Your task to perform on an android device: stop showing notifications on the lock screen Image 0: 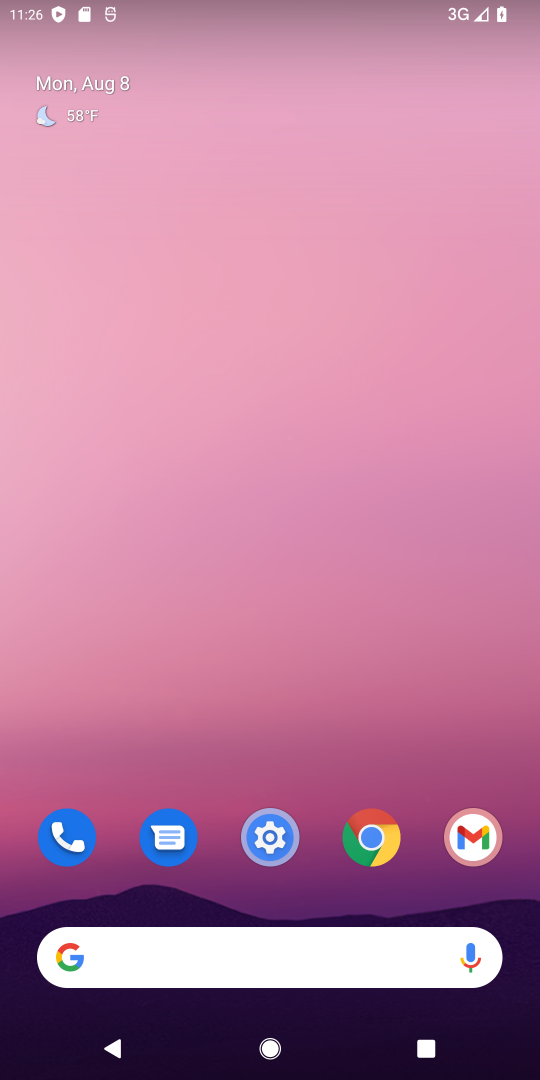
Step 0: click (271, 830)
Your task to perform on an android device: stop showing notifications on the lock screen Image 1: 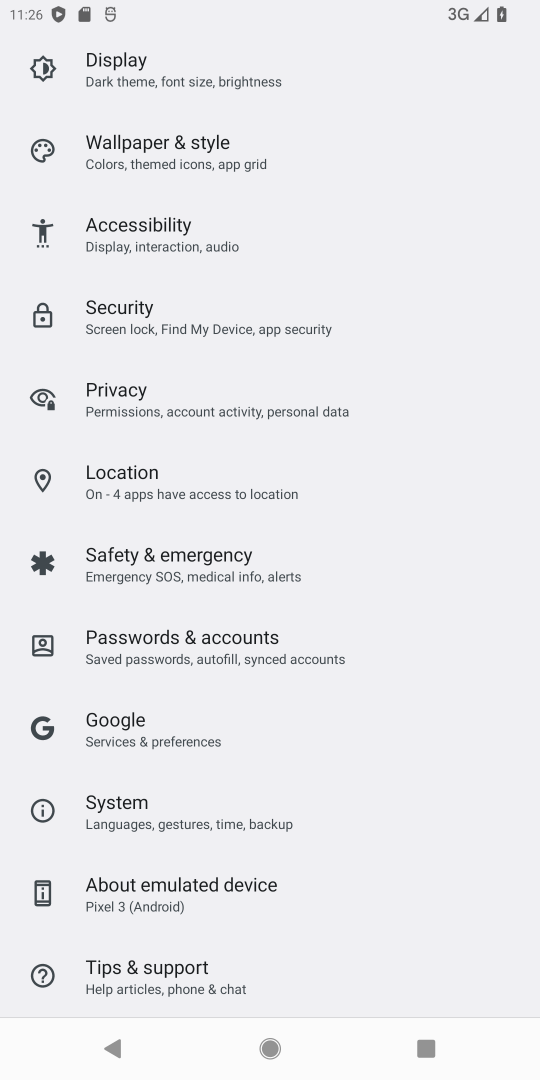
Step 1: drag from (360, 194) to (372, 875)
Your task to perform on an android device: stop showing notifications on the lock screen Image 2: 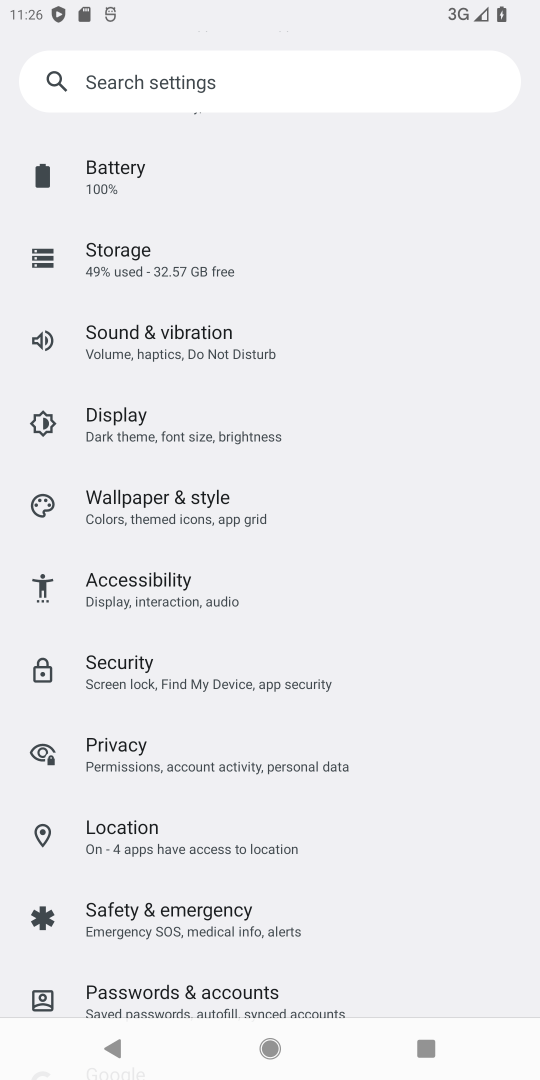
Step 2: drag from (385, 272) to (386, 765)
Your task to perform on an android device: stop showing notifications on the lock screen Image 3: 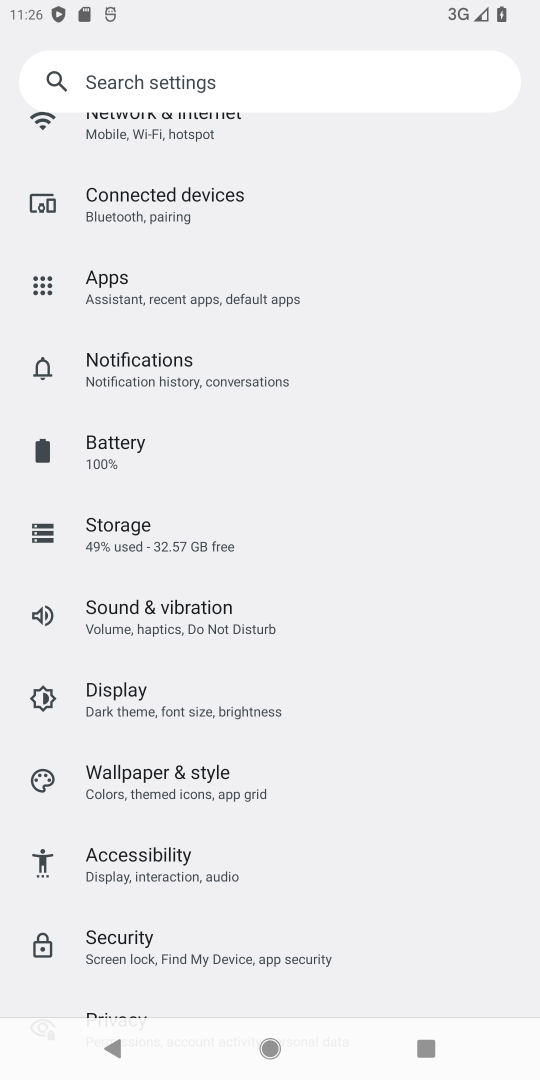
Step 3: click (156, 369)
Your task to perform on an android device: stop showing notifications on the lock screen Image 4: 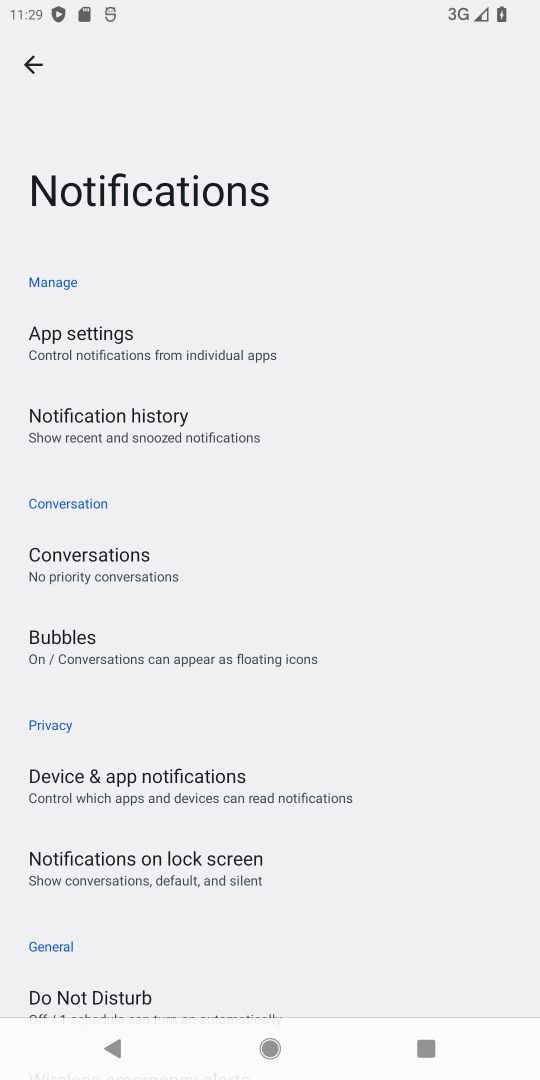
Step 4: drag from (397, 745) to (418, 411)
Your task to perform on an android device: stop showing notifications on the lock screen Image 5: 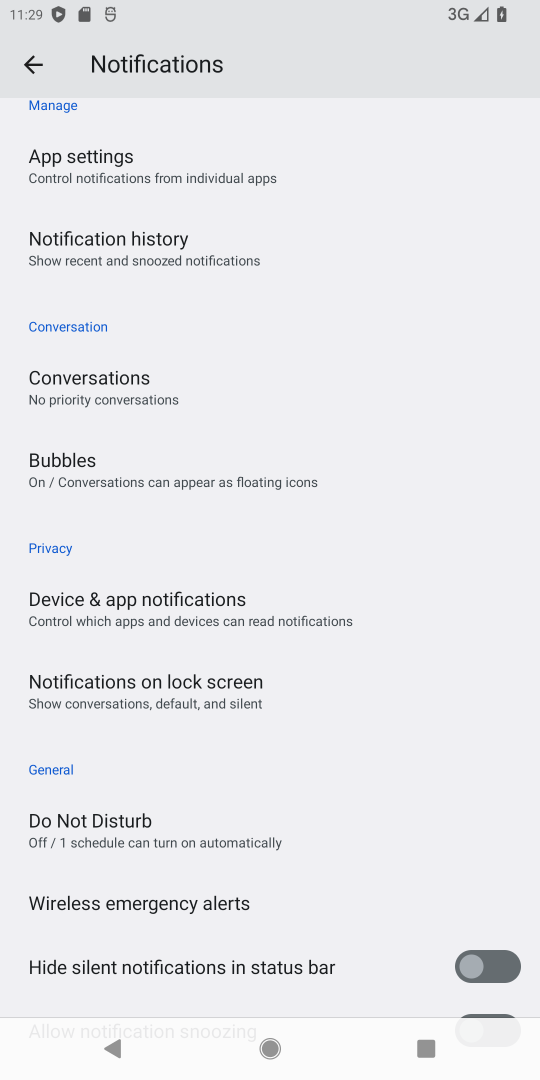
Step 5: click (106, 684)
Your task to perform on an android device: stop showing notifications on the lock screen Image 6: 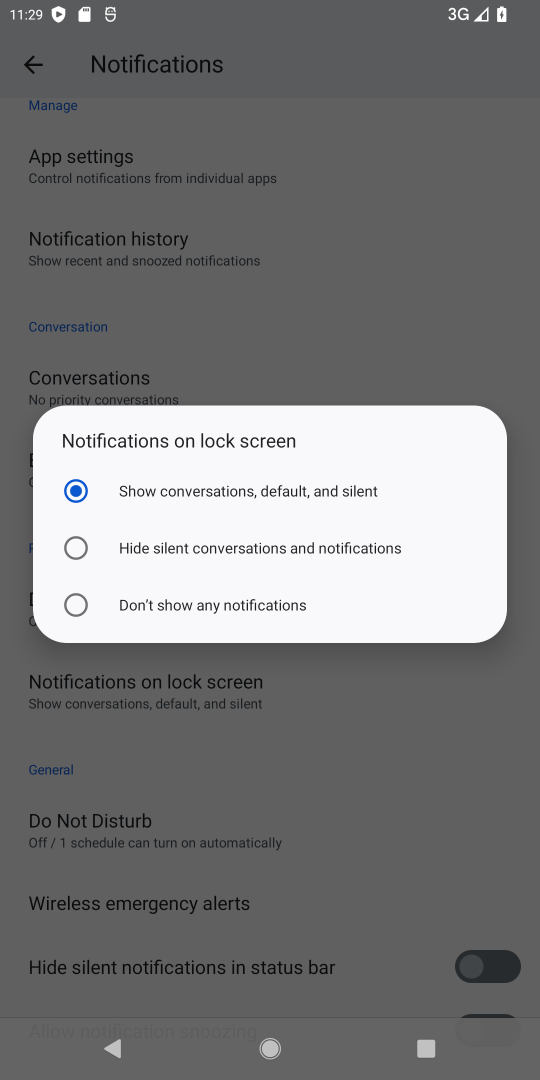
Step 6: click (65, 606)
Your task to perform on an android device: stop showing notifications on the lock screen Image 7: 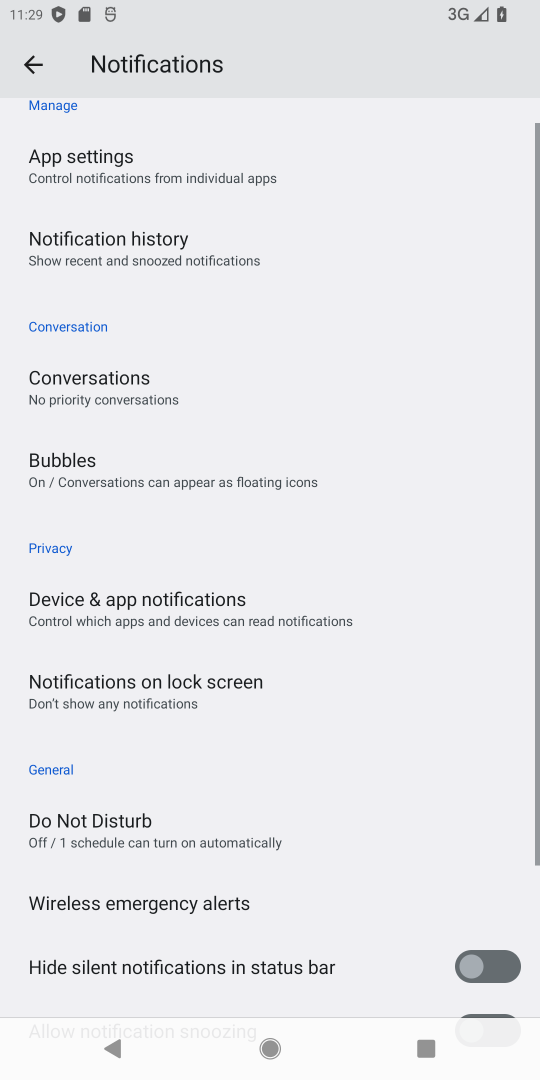
Step 7: task complete